Your task to perform on an android device: turn off data saver in the chrome app Image 0: 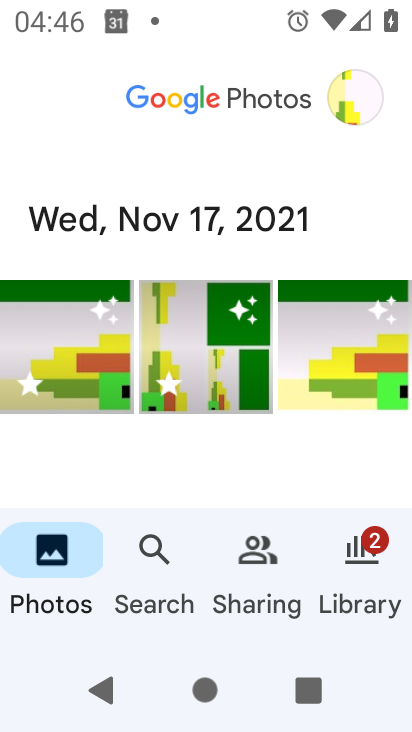
Step 0: press home button
Your task to perform on an android device: turn off data saver in the chrome app Image 1: 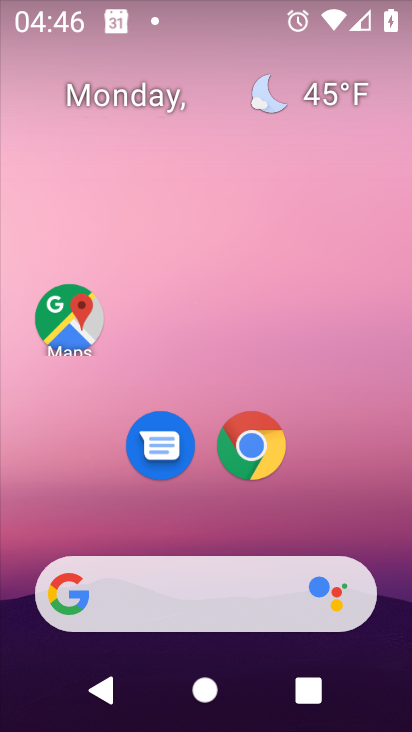
Step 1: click (243, 444)
Your task to perform on an android device: turn off data saver in the chrome app Image 2: 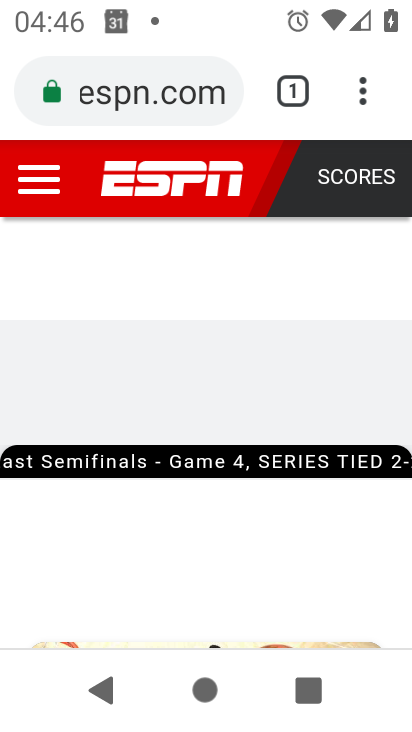
Step 2: click (357, 90)
Your task to perform on an android device: turn off data saver in the chrome app Image 3: 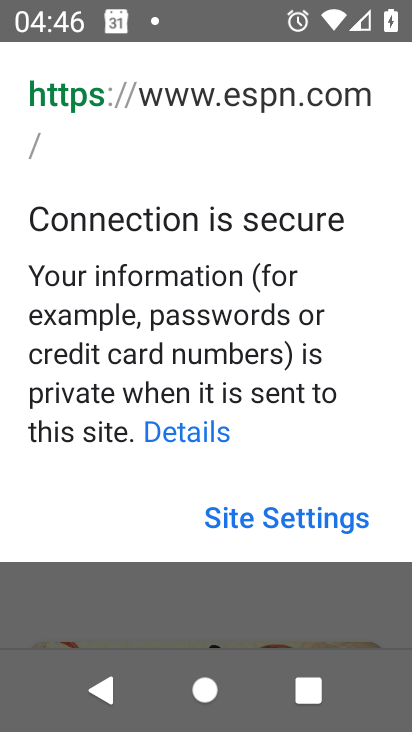
Step 3: click (235, 602)
Your task to perform on an android device: turn off data saver in the chrome app Image 4: 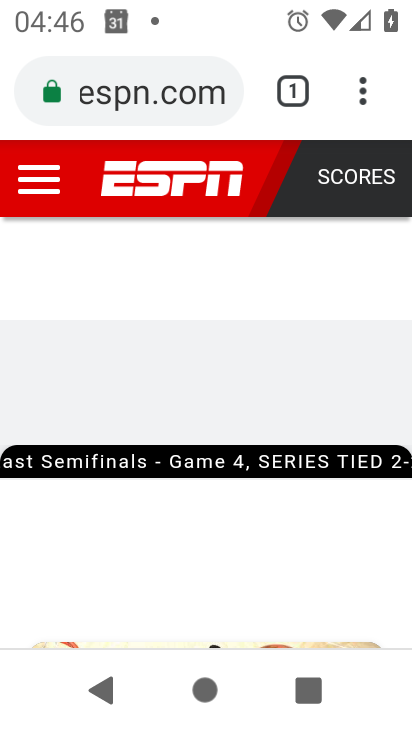
Step 4: click (355, 94)
Your task to perform on an android device: turn off data saver in the chrome app Image 5: 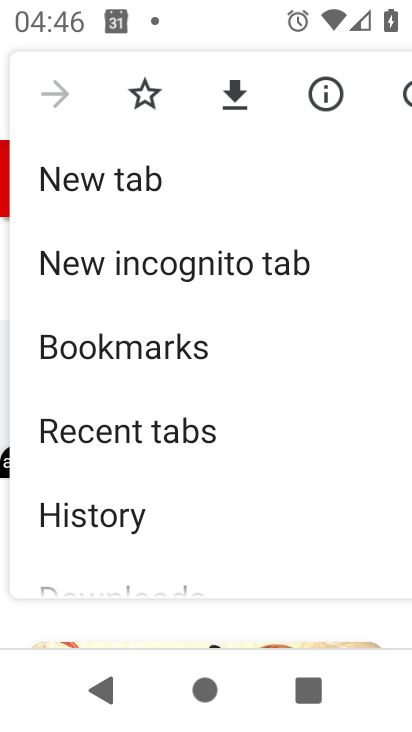
Step 5: drag from (206, 542) to (237, 138)
Your task to perform on an android device: turn off data saver in the chrome app Image 6: 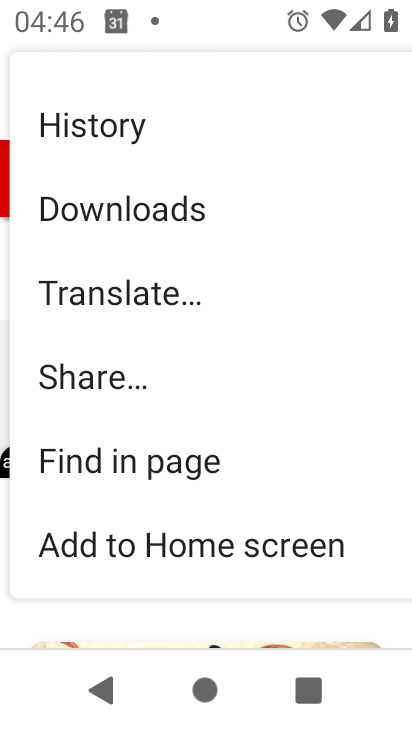
Step 6: drag from (152, 473) to (170, 164)
Your task to perform on an android device: turn off data saver in the chrome app Image 7: 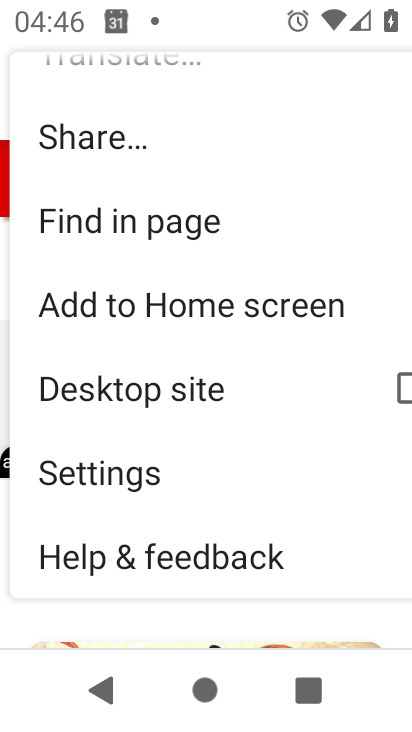
Step 7: click (170, 459)
Your task to perform on an android device: turn off data saver in the chrome app Image 8: 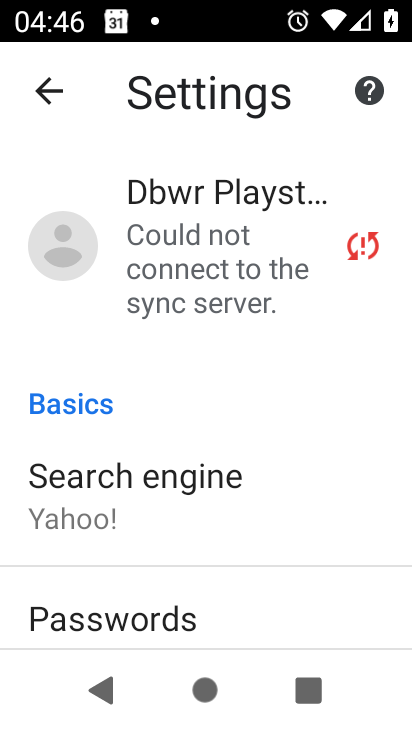
Step 8: drag from (214, 582) to (214, 185)
Your task to perform on an android device: turn off data saver in the chrome app Image 9: 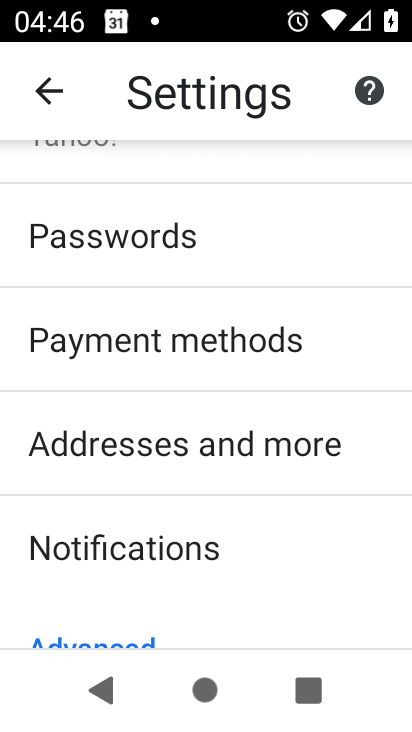
Step 9: drag from (184, 535) to (217, 190)
Your task to perform on an android device: turn off data saver in the chrome app Image 10: 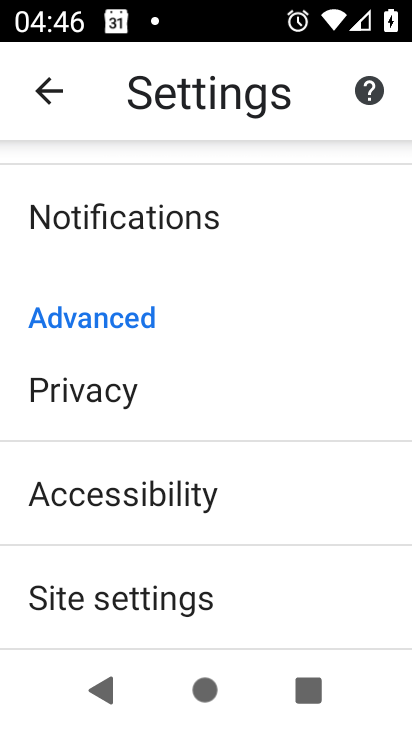
Step 10: drag from (173, 603) to (166, 205)
Your task to perform on an android device: turn off data saver in the chrome app Image 11: 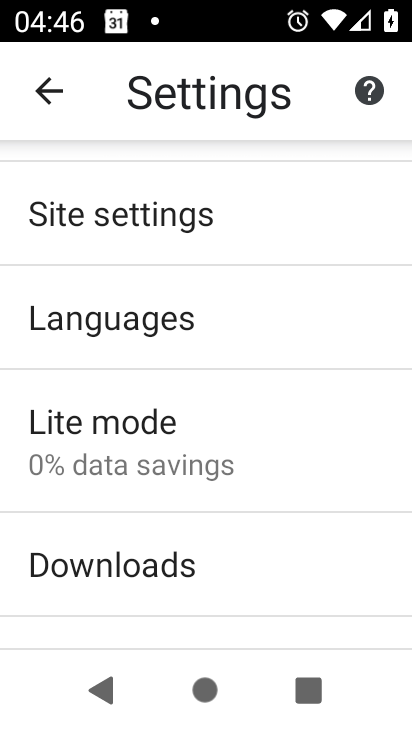
Step 11: click (117, 451)
Your task to perform on an android device: turn off data saver in the chrome app Image 12: 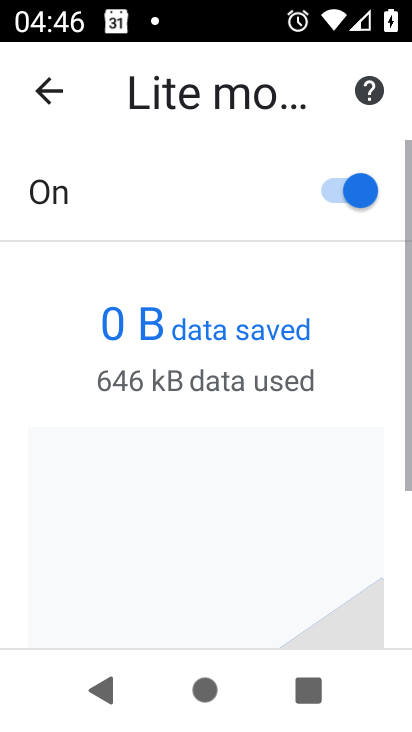
Step 12: click (330, 182)
Your task to perform on an android device: turn off data saver in the chrome app Image 13: 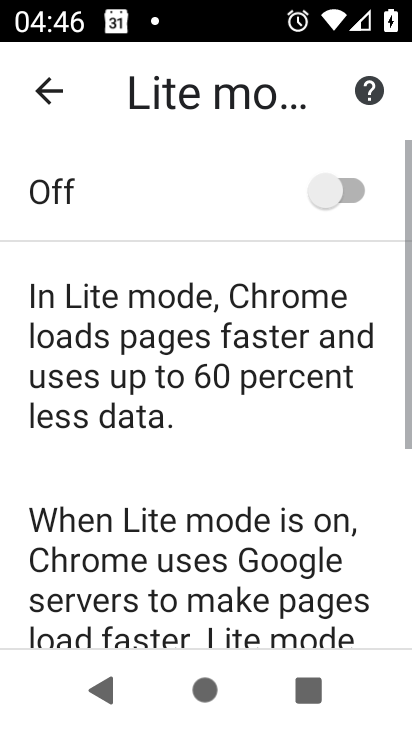
Step 13: task complete